Your task to perform on an android device: Open Google Chrome and click the shortcut for Amazon.com Image 0: 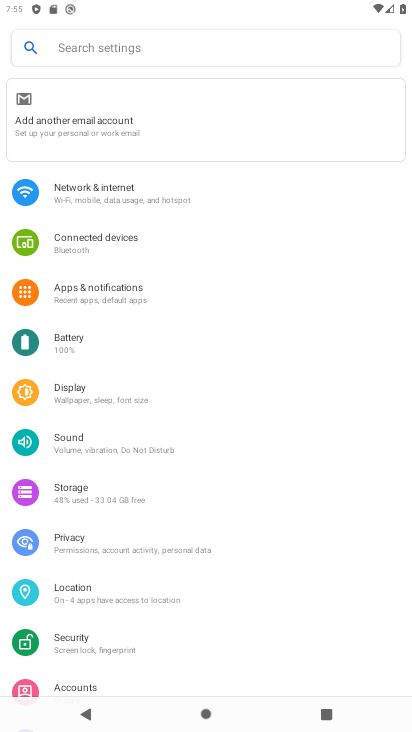
Step 0: press home button
Your task to perform on an android device: Open Google Chrome and click the shortcut for Amazon.com Image 1: 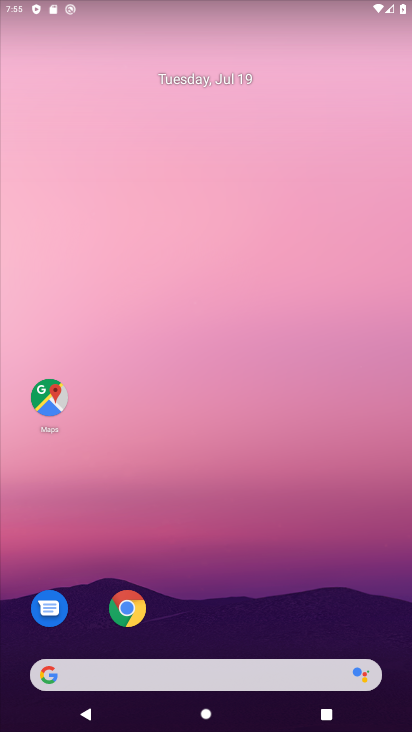
Step 1: click (125, 613)
Your task to perform on an android device: Open Google Chrome and click the shortcut for Amazon.com Image 2: 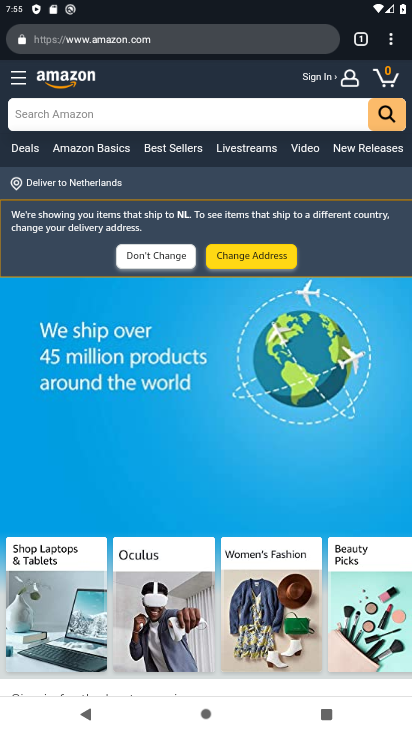
Step 2: task complete